Your task to perform on an android device: turn off wifi Image 0: 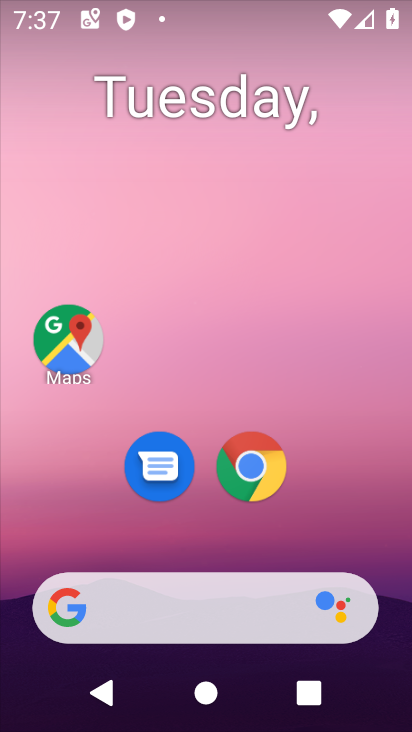
Step 0: drag from (364, 515) to (349, 29)
Your task to perform on an android device: turn off wifi Image 1: 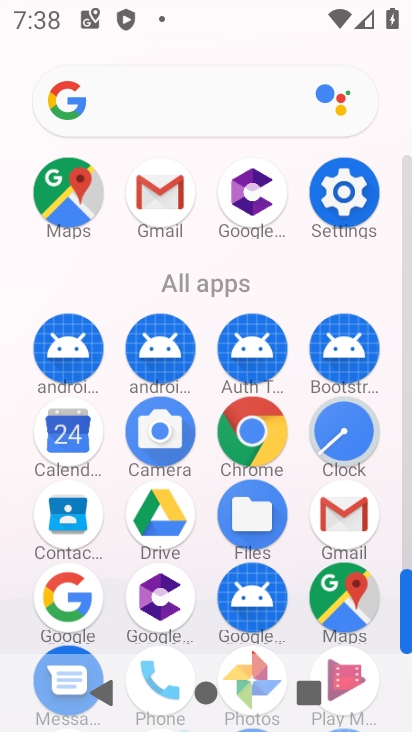
Step 1: click (325, 196)
Your task to perform on an android device: turn off wifi Image 2: 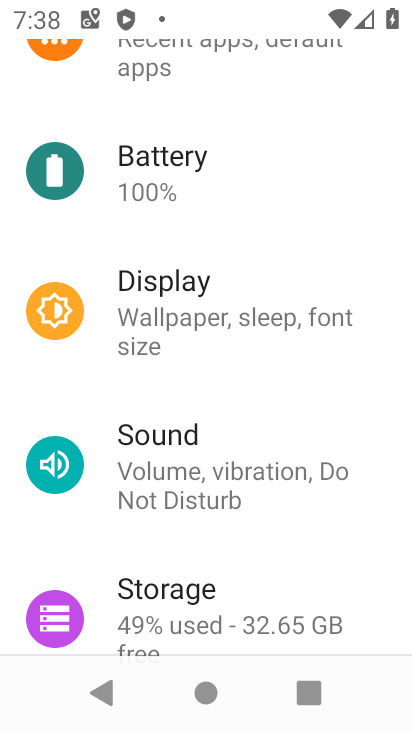
Step 2: drag from (182, 330) to (203, 589)
Your task to perform on an android device: turn off wifi Image 3: 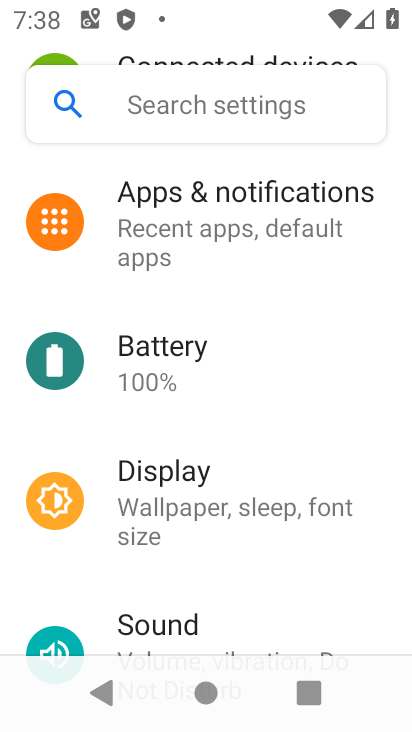
Step 3: drag from (255, 184) to (318, 648)
Your task to perform on an android device: turn off wifi Image 4: 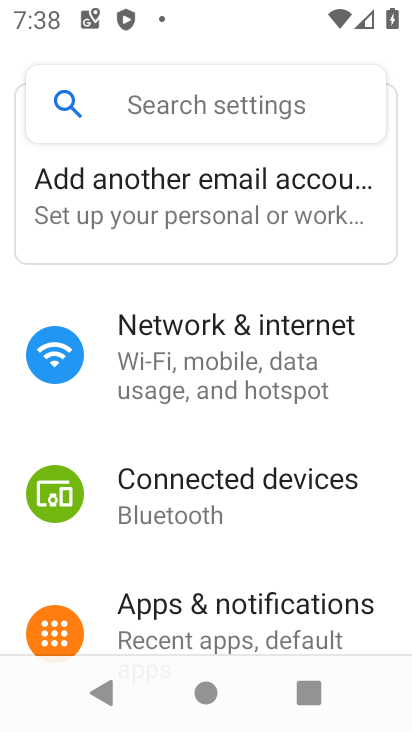
Step 4: click (207, 312)
Your task to perform on an android device: turn off wifi Image 5: 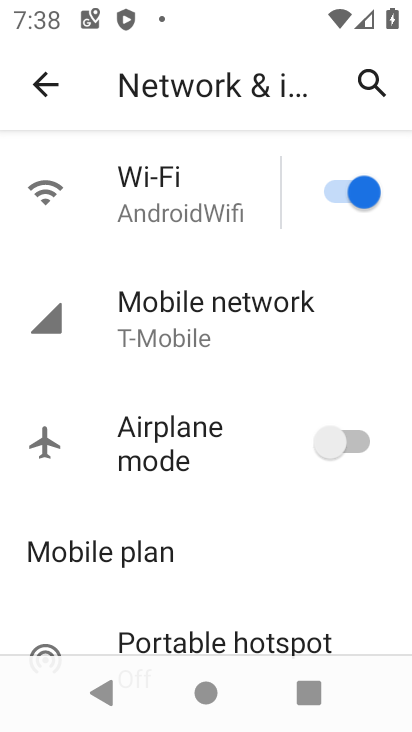
Step 5: click (315, 203)
Your task to perform on an android device: turn off wifi Image 6: 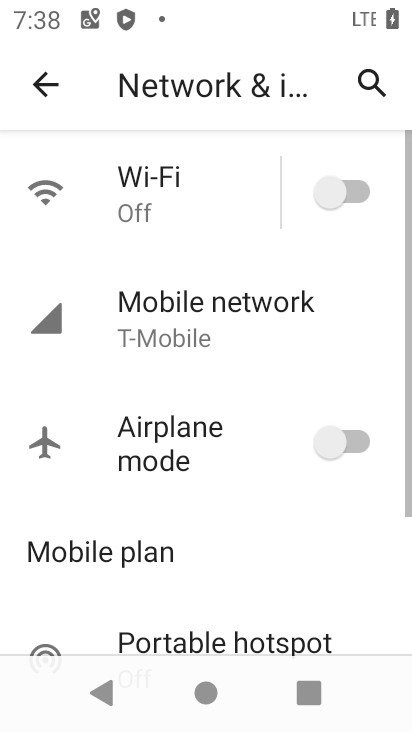
Step 6: task complete